Your task to perform on an android device: clear history in the chrome app Image 0: 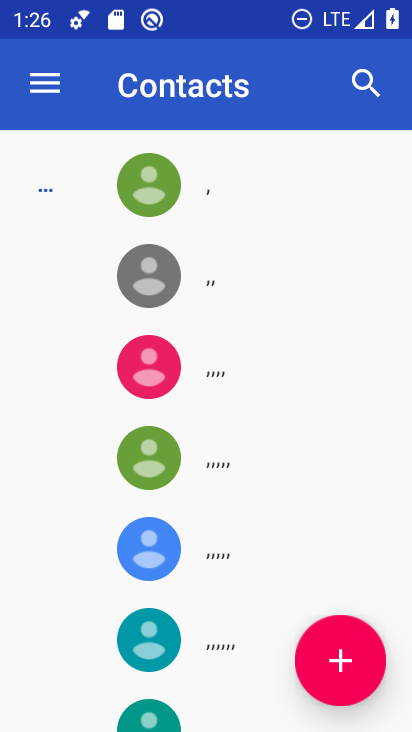
Step 0: press home button
Your task to perform on an android device: clear history in the chrome app Image 1: 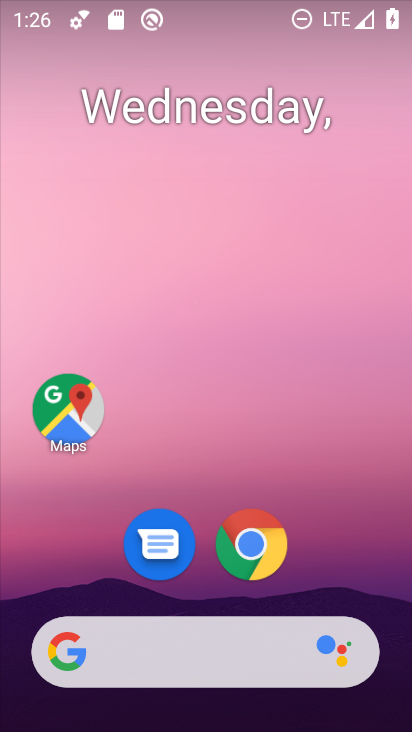
Step 1: click (239, 532)
Your task to perform on an android device: clear history in the chrome app Image 2: 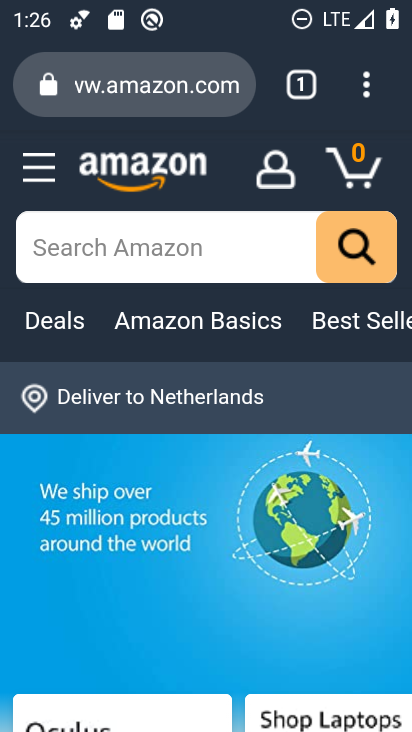
Step 2: click (353, 94)
Your task to perform on an android device: clear history in the chrome app Image 3: 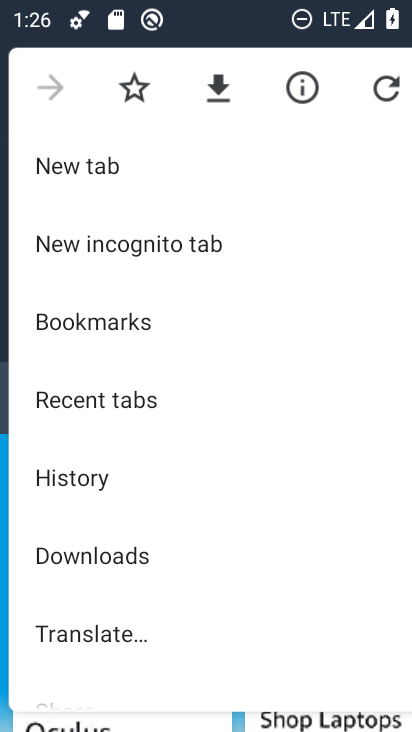
Step 3: drag from (188, 635) to (274, 219)
Your task to perform on an android device: clear history in the chrome app Image 4: 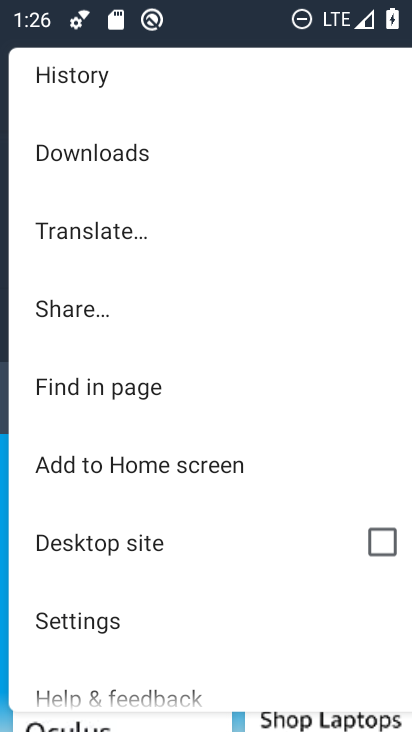
Step 4: click (154, 77)
Your task to perform on an android device: clear history in the chrome app Image 5: 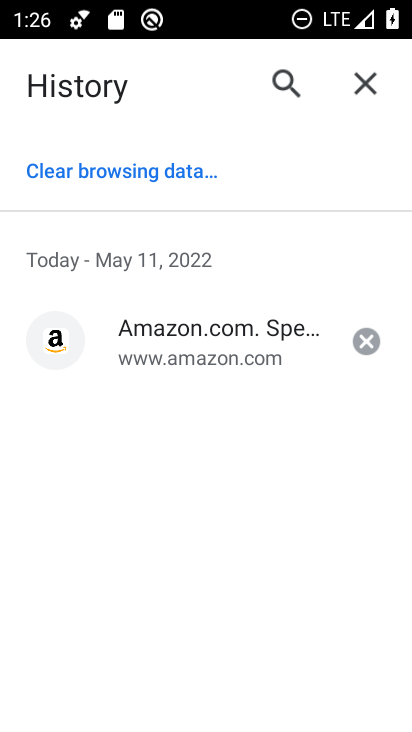
Step 5: click (165, 159)
Your task to perform on an android device: clear history in the chrome app Image 6: 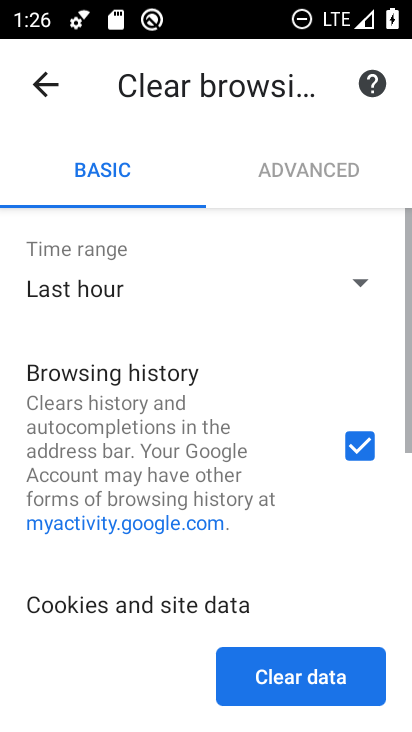
Step 6: click (297, 670)
Your task to perform on an android device: clear history in the chrome app Image 7: 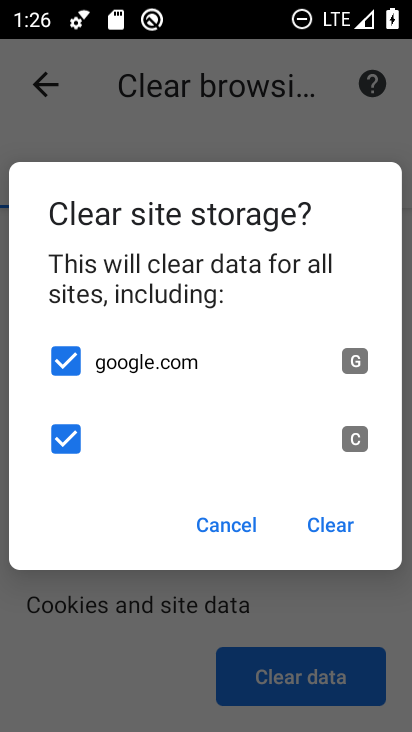
Step 7: click (334, 521)
Your task to perform on an android device: clear history in the chrome app Image 8: 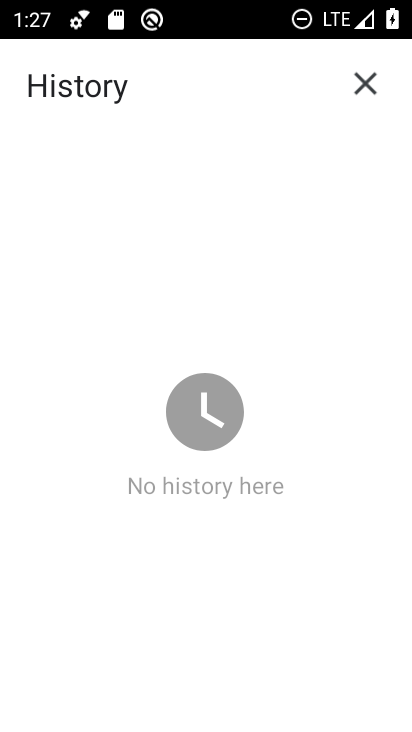
Step 8: task complete